Your task to perform on an android device: install app "Airtel Thanks" Image 0: 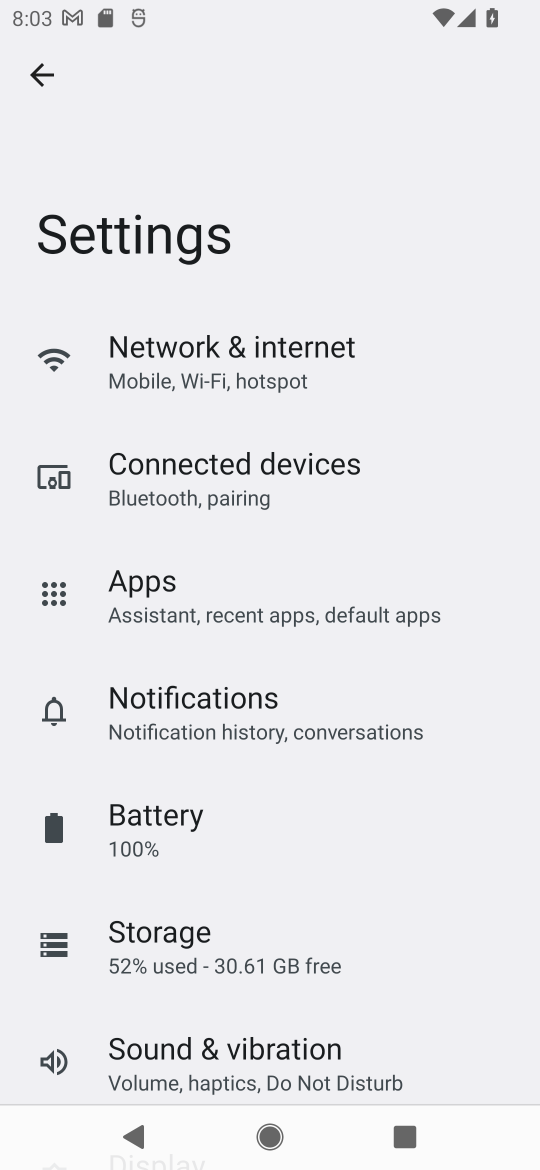
Step 0: press home button
Your task to perform on an android device: install app "Airtel Thanks" Image 1: 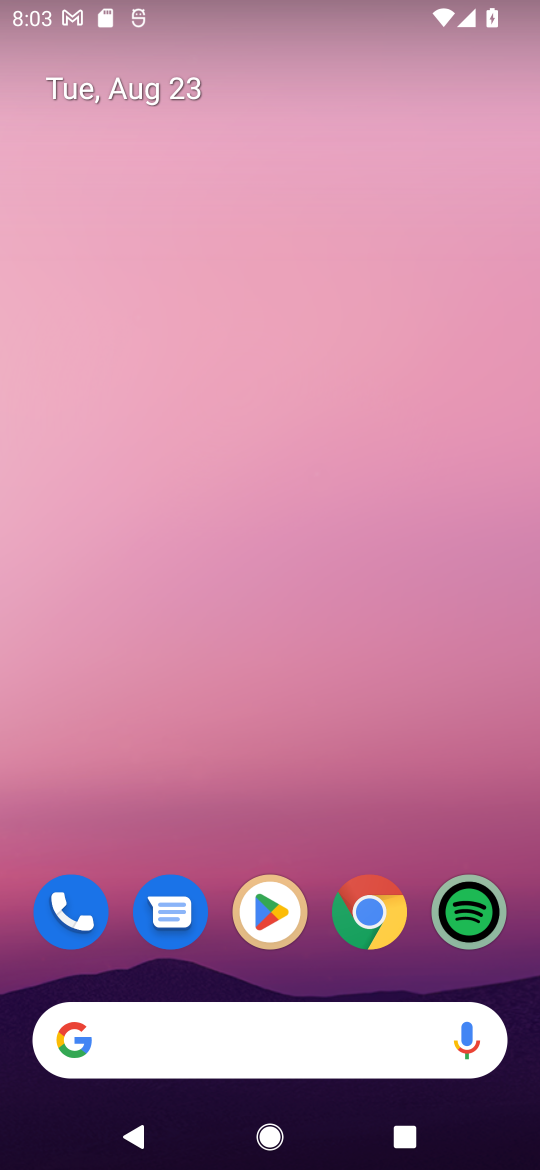
Step 1: click (269, 916)
Your task to perform on an android device: install app "Airtel Thanks" Image 2: 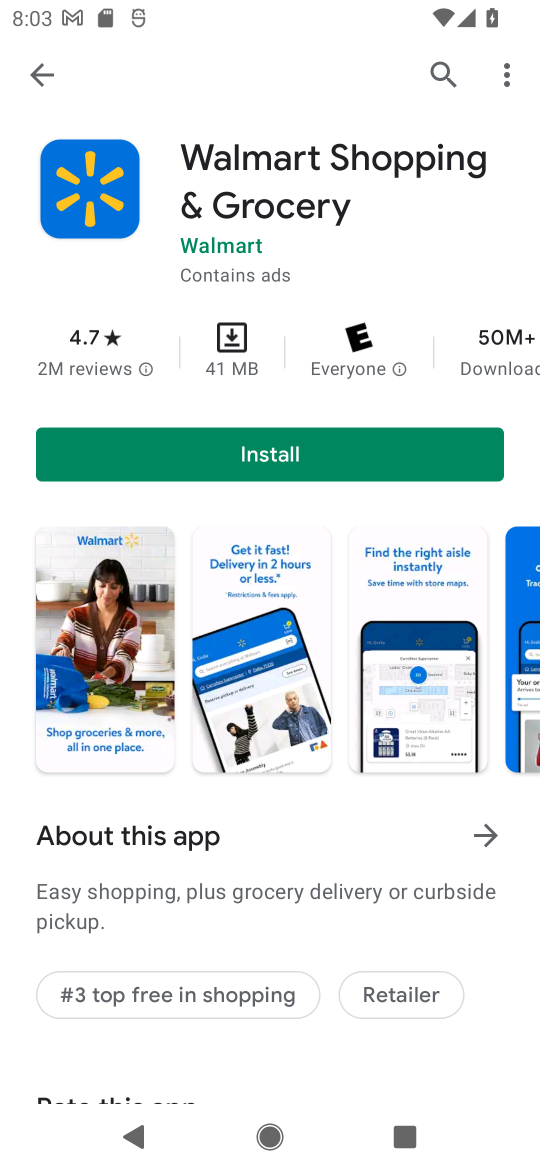
Step 2: click (448, 62)
Your task to perform on an android device: install app "Airtel Thanks" Image 3: 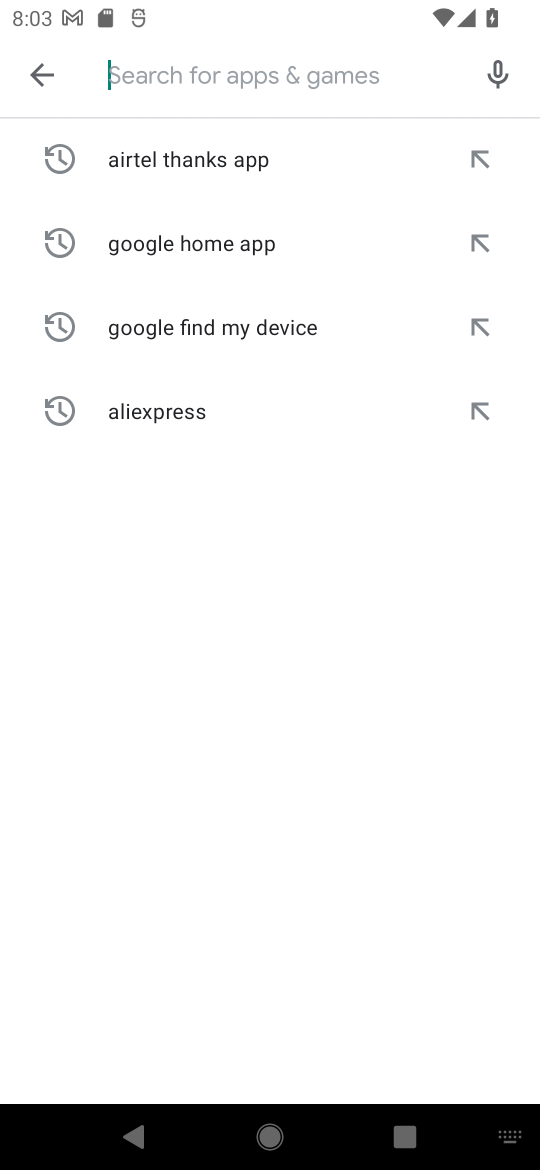
Step 3: type "Airtel Thanks"
Your task to perform on an android device: install app "Airtel Thanks" Image 4: 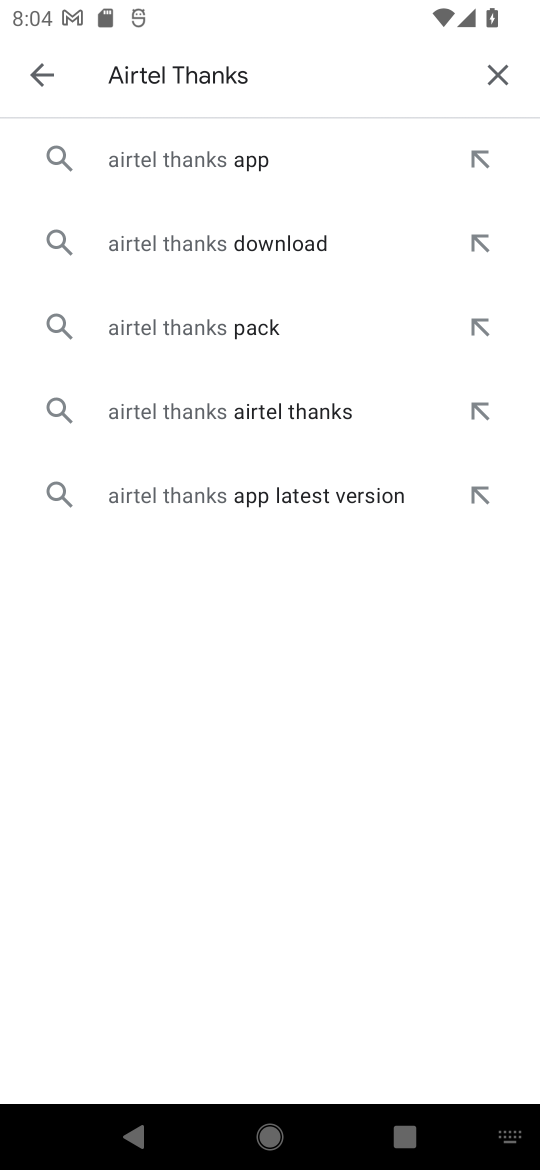
Step 4: click (165, 152)
Your task to perform on an android device: install app "Airtel Thanks" Image 5: 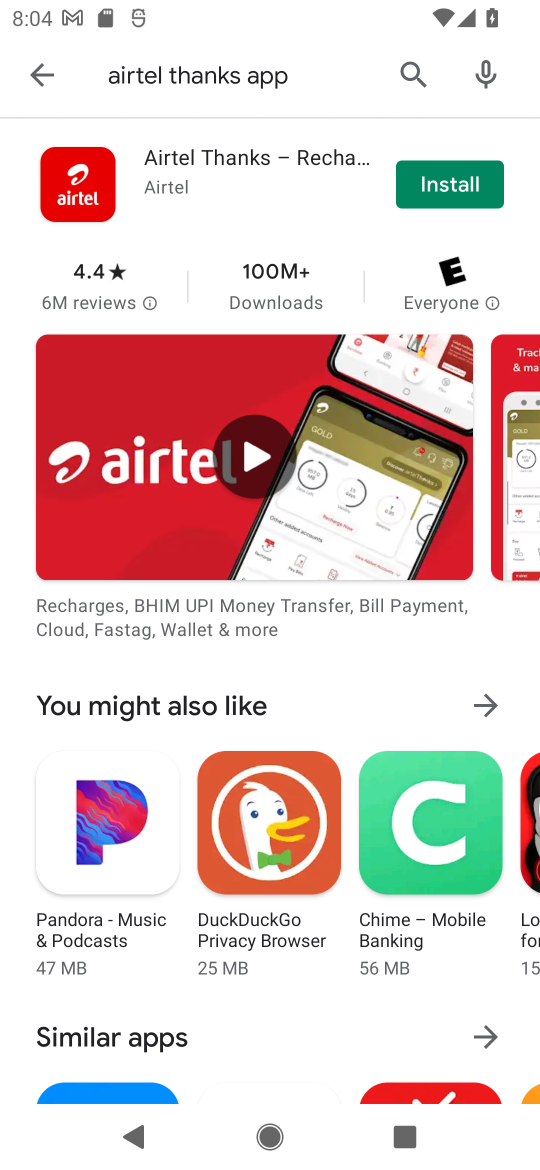
Step 5: click (464, 180)
Your task to perform on an android device: install app "Airtel Thanks" Image 6: 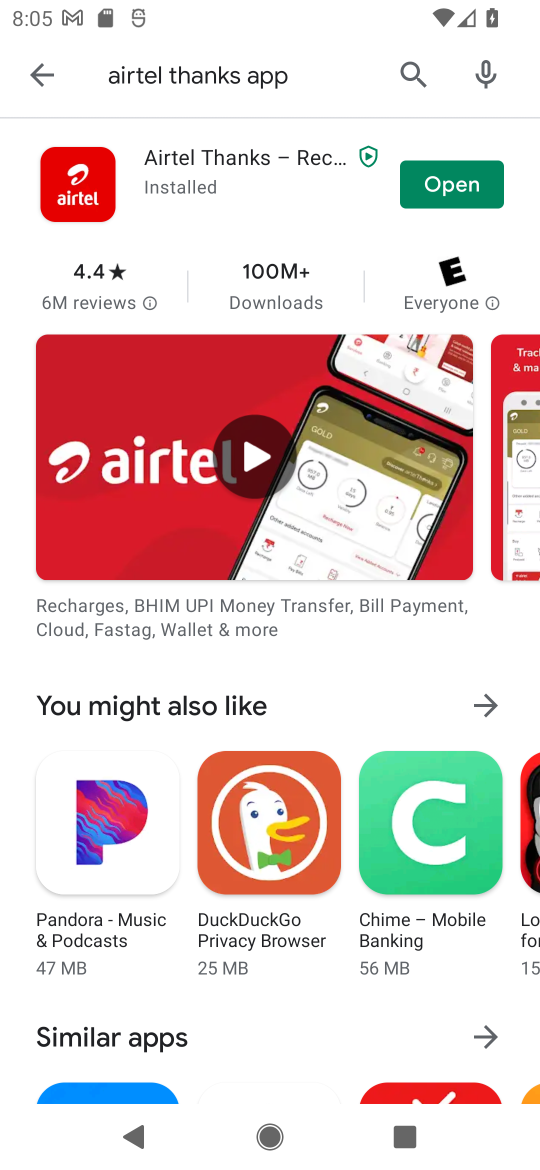
Step 6: task complete